Your task to perform on an android device: Open display settings Image 0: 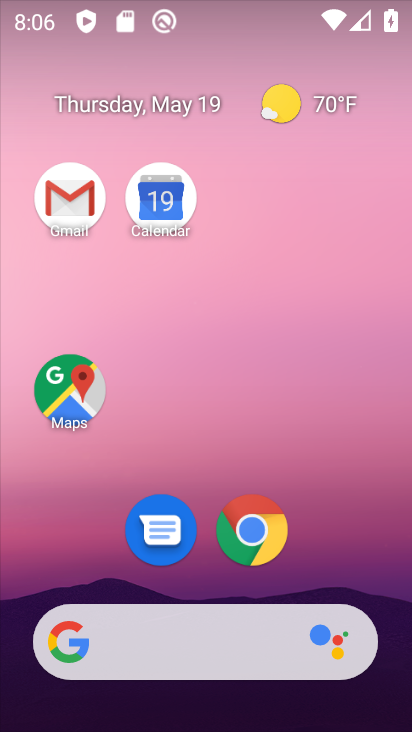
Step 0: drag from (189, 579) to (250, 70)
Your task to perform on an android device: Open display settings Image 1: 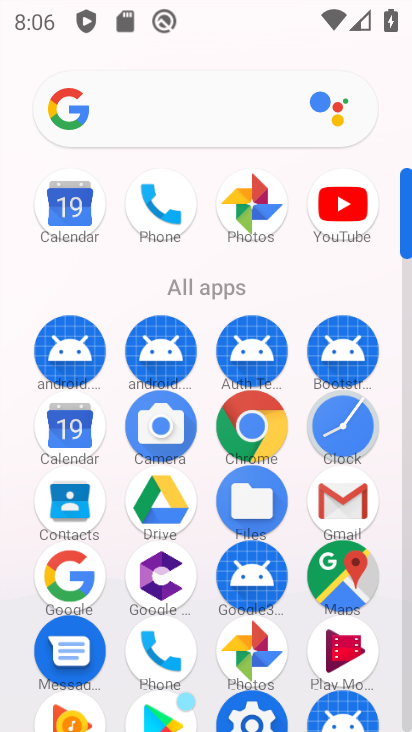
Step 1: drag from (152, 508) to (189, 127)
Your task to perform on an android device: Open display settings Image 2: 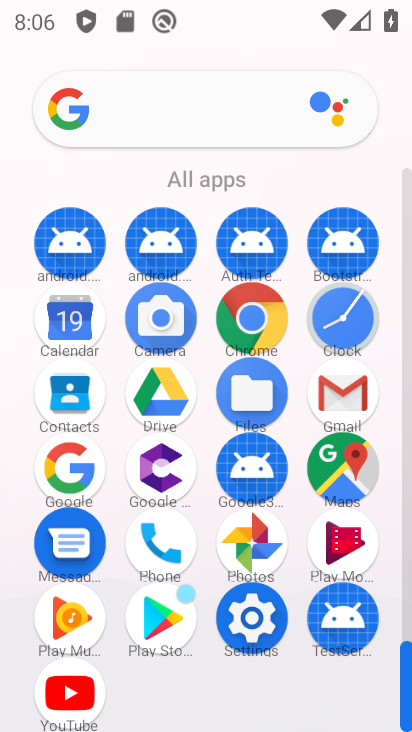
Step 2: drag from (263, 620) to (124, 274)
Your task to perform on an android device: Open display settings Image 3: 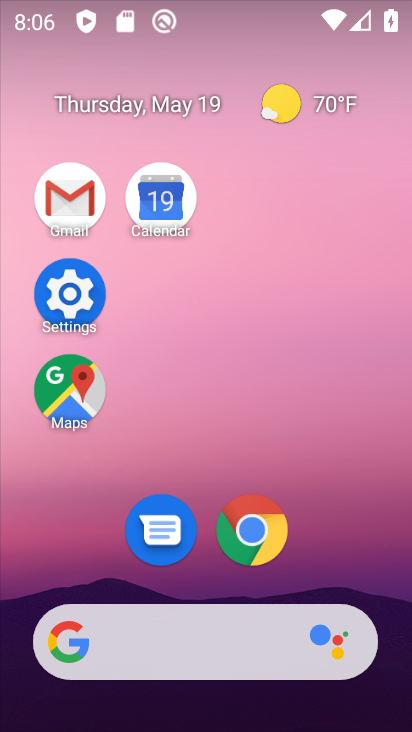
Step 3: click (68, 269)
Your task to perform on an android device: Open display settings Image 4: 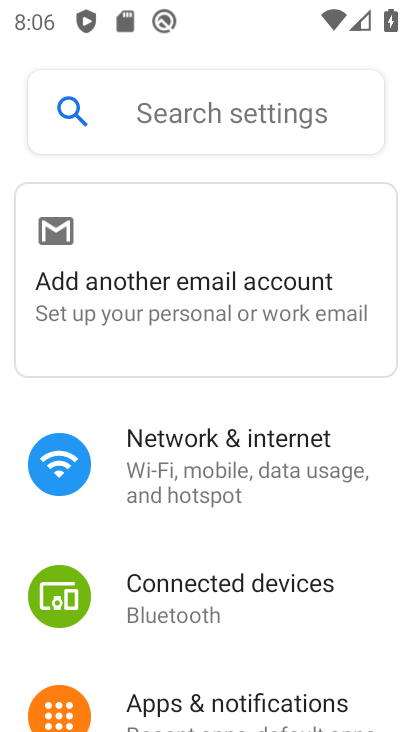
Step 4: drag from (235, 644) to (255, 150)
Your task to perform on an android device: Open display settings Image 5: 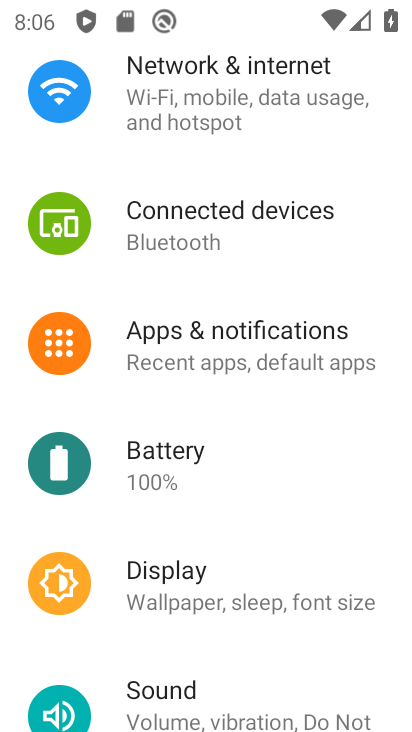
Step 5: click (221, 587)
Your task to perform on an android device: Open display settings Image 6: 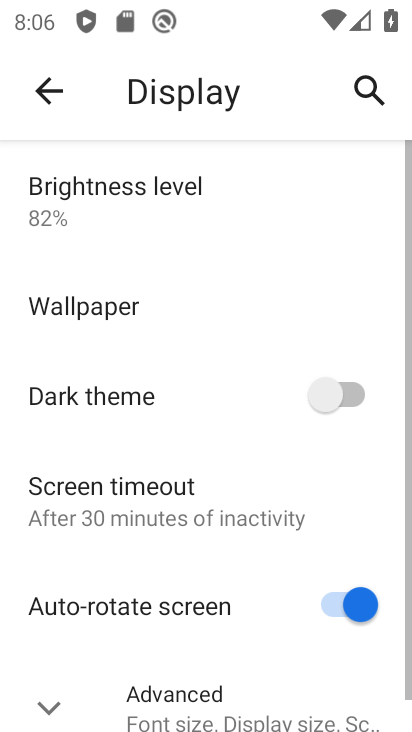
Step 6: task complete